Your task to perform on an android device: toggle sleep mode Image 0: 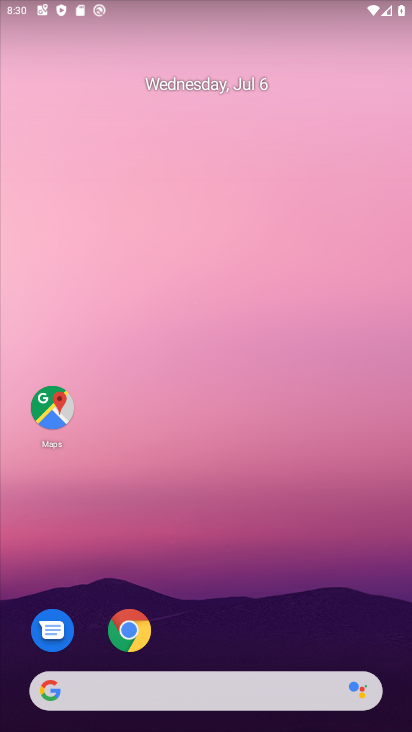
Step 0: drag from (367, 657) to (6, 228)
Your task to perform on an android device: toggle sleep mode Image 1: 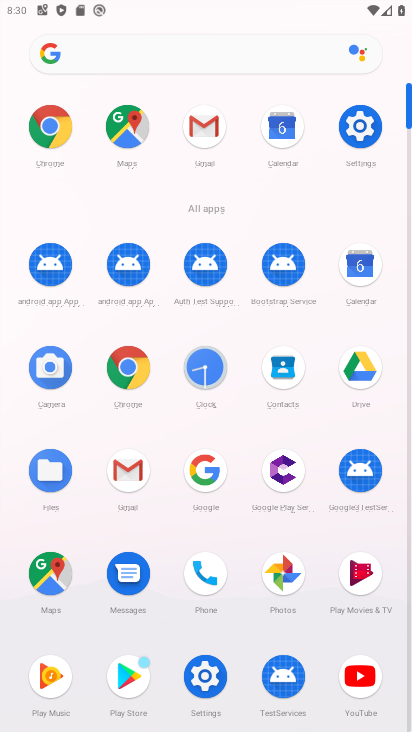
Step 1: click (371, 132)
Your task to perform on an android device: toggle sleep mode Image 2: 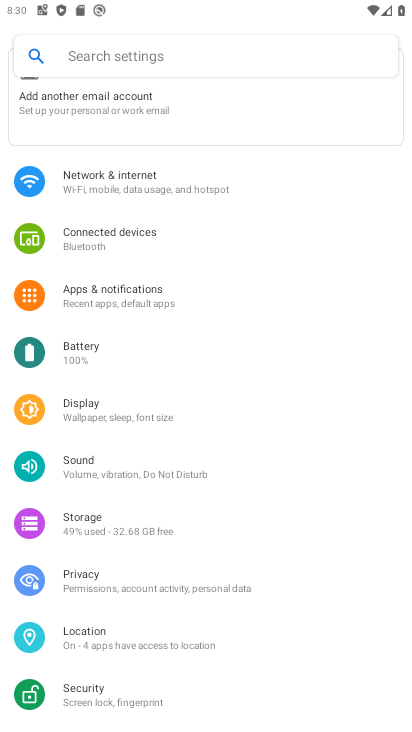
Step 2: click (60, 401)
Your task to perform on an android device: toggle sleep mode Image 3: 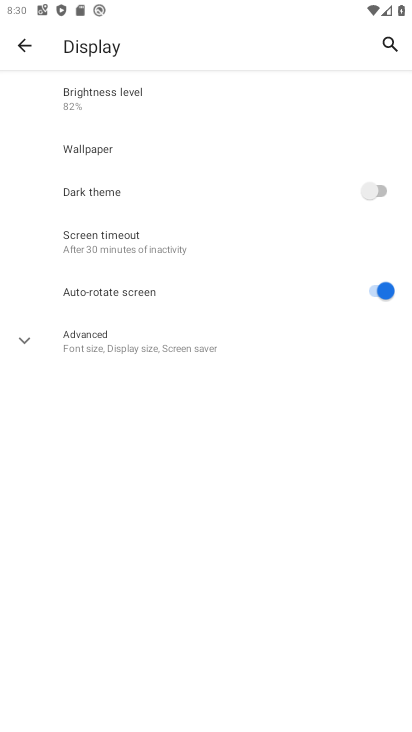
Step 3: click (29, 336)
Your task to perform on an android device: toggle sleep mode Image 4: 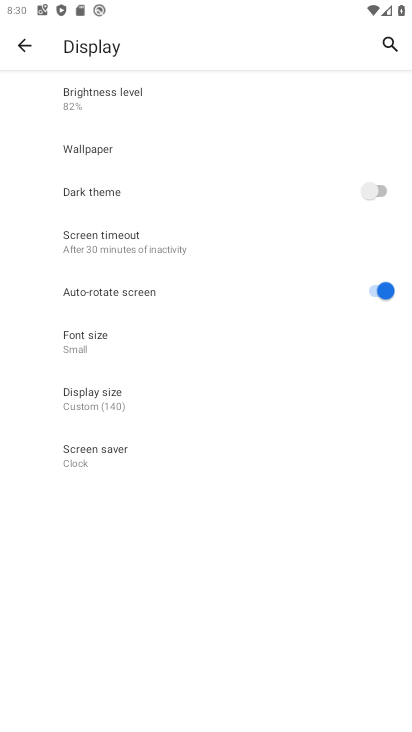
Step 4: click (142, 241)
Your task to perform on an android device: toggle sleep mode Image 5: 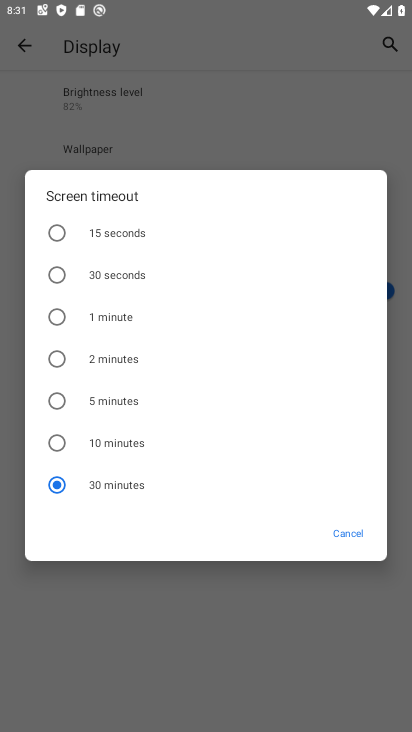
Step 5: click (57, 442)
Your task to perform on an android device: toggle sleep mode Image 6: 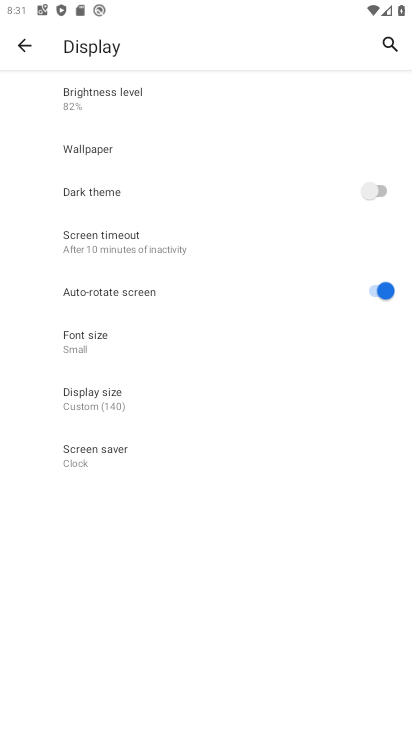
Step 6: task complete